Your task to perform on an android device: Open Wikipedia Image 0: 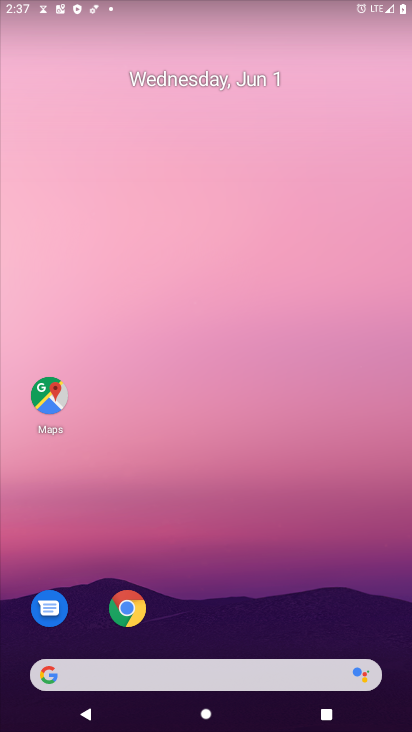
Step 0: click (124, 608)
Your task to perform on an android device: Open Wikipedia Image 1: 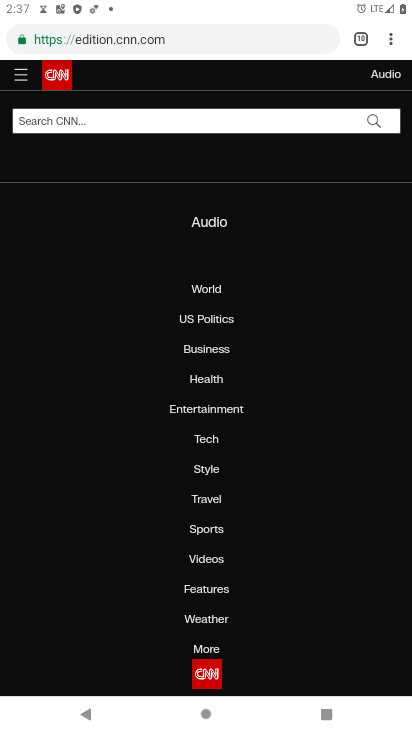
Step 1: click (371, 39)
Your task to perform on an android device: Open Wikipedia Image 2: 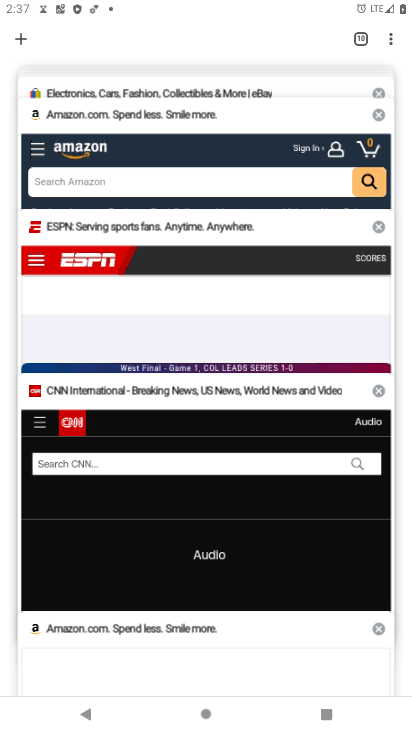
Step 2: drag from (248, 134) to (191, 573)
Your task to perform on an android device: Open Wikipedia Image 3: 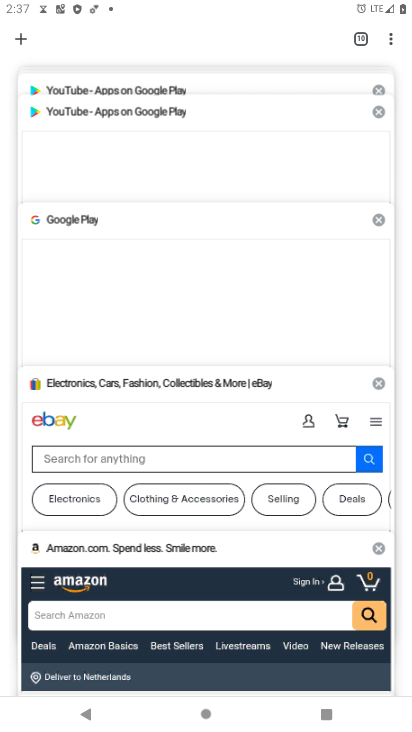
Step 3: drag from (232, 130) to (201, 587)
Your task to perform on an android device: Open Wikipedia Image 4: 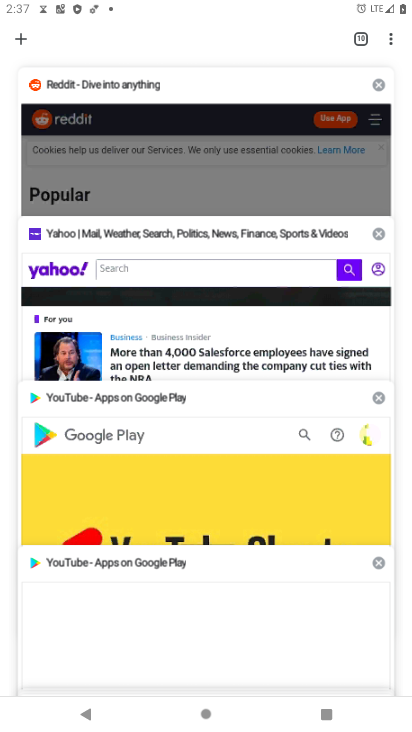
Step 4: drag from (230, 184) to (227, 559)
Your task to perform on an android device: Open Wikipedia Image 5: 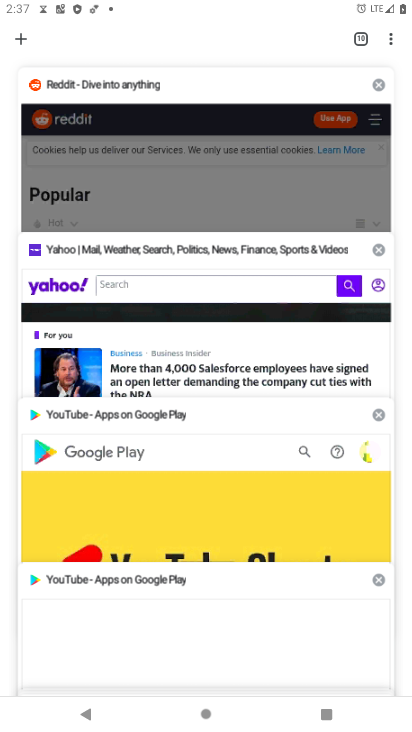
Step 5: drag from (227, 559) to (315, 78)
Your task to perform on an android device: Open Wikipedia Image 6: 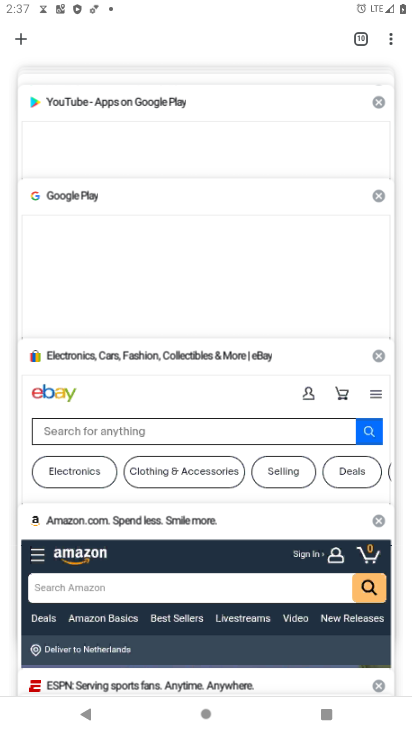
Step 6: drag from (212, 448) to (226, 134)
Your task to perform on an android device: Open Wikipedia Image 7: 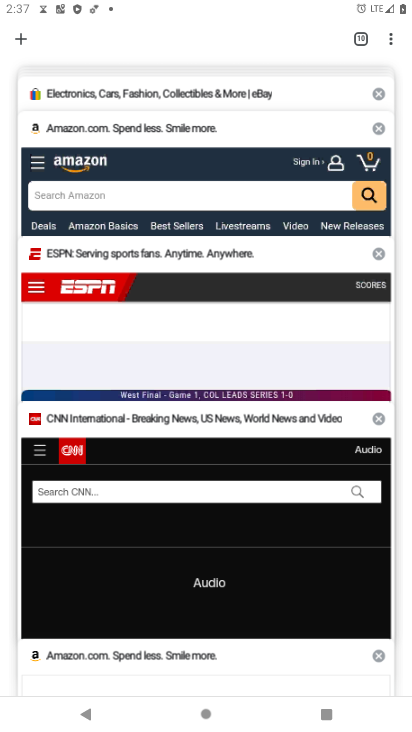
Step 7: drag from (133, 467) to (154, 166)
Your task to perform on an android device: Open Wikipedia Image 8: 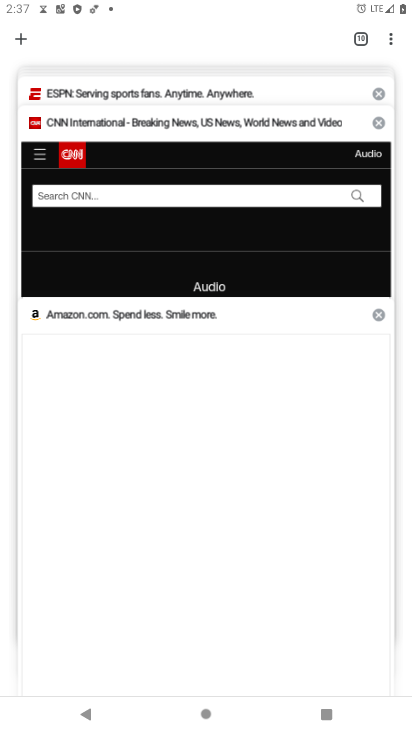
Step 8: drag from (171, 468) to (206, 224)
Your task to perform on an android device: Open Wikipedia Image 9: 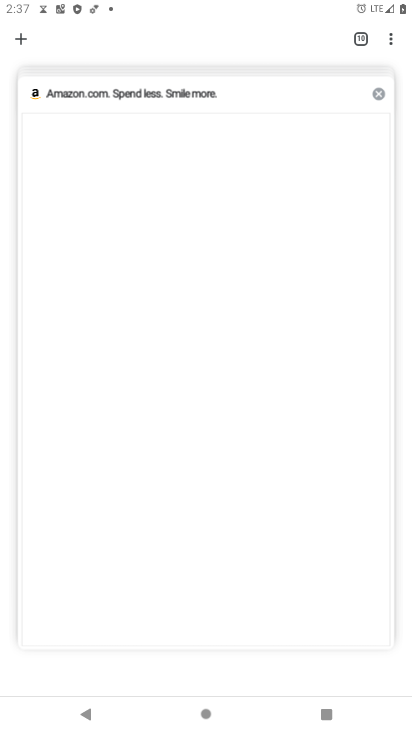
Step 9: click (21, 29)
Your task to perform on an android device: Open Wikipedia Image 10: 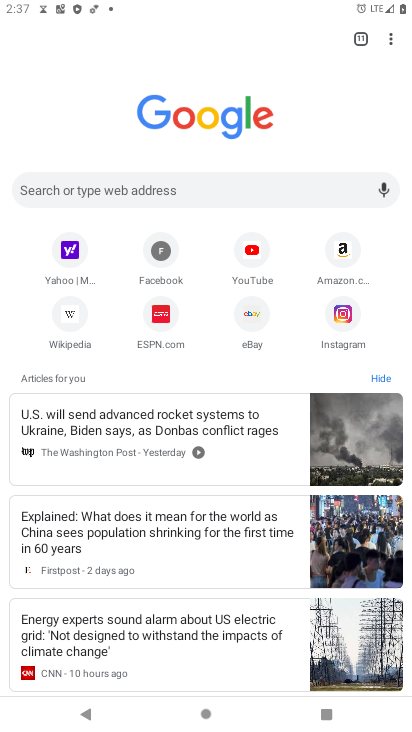
Step 10: click (74, 313)
Your task to perform on an android device: Open Wikipedia Image 11: 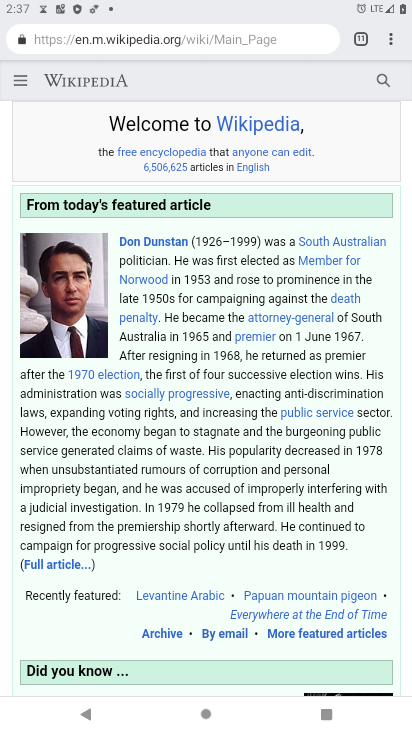
Step 11: task complete